Your task to perform on an android device: Go to Yahoo.com Image 0: 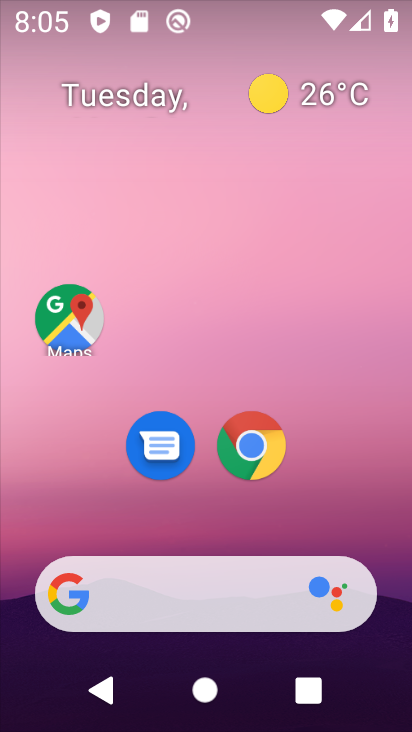
Step 0: click (252, 444)
Your task to perform on an android device: Go to Yahoo.com Image 1: 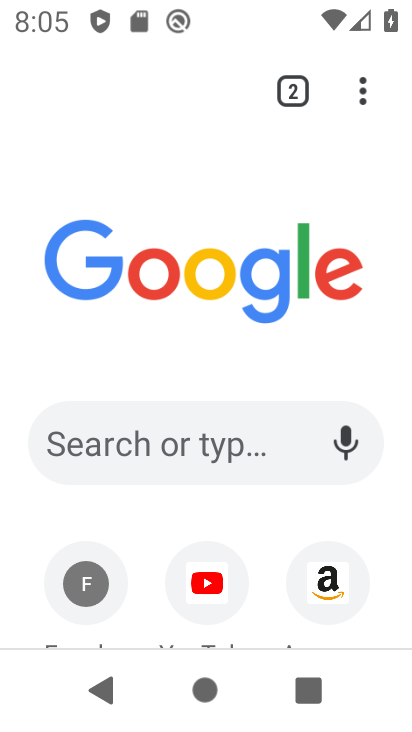
Step 1: click (220, 445)
Your task to perform on an android device: Go to Yahoo.com Image 2: 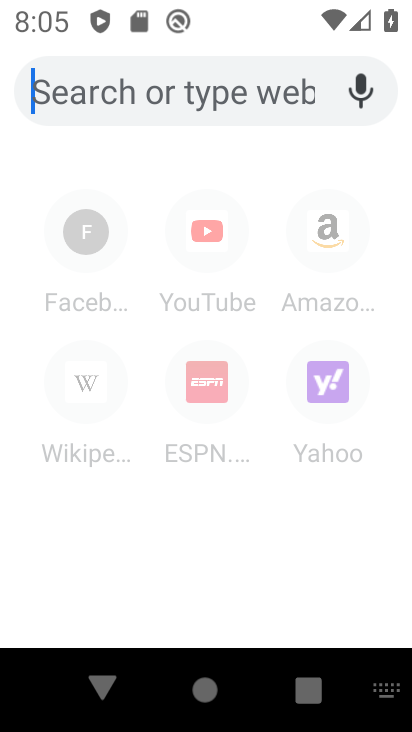
Step 2: type "Yahoo.com"
Your task to perform on an android device: Go to Yahoo.com Image 3: 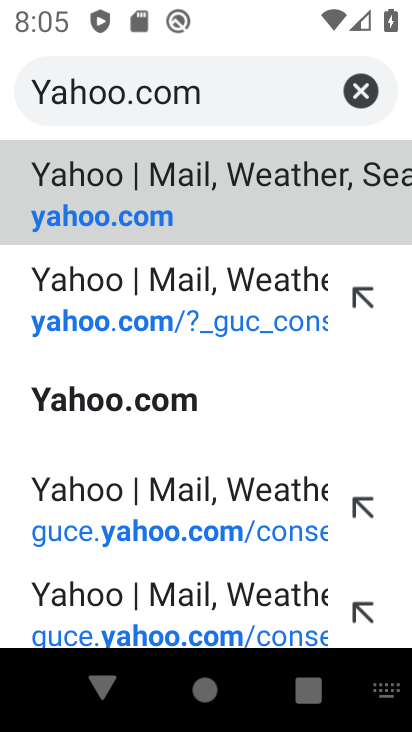
Step 3: click (133, 411)
Your task to perform on an android device: Go to Yahoo.com Image 4: 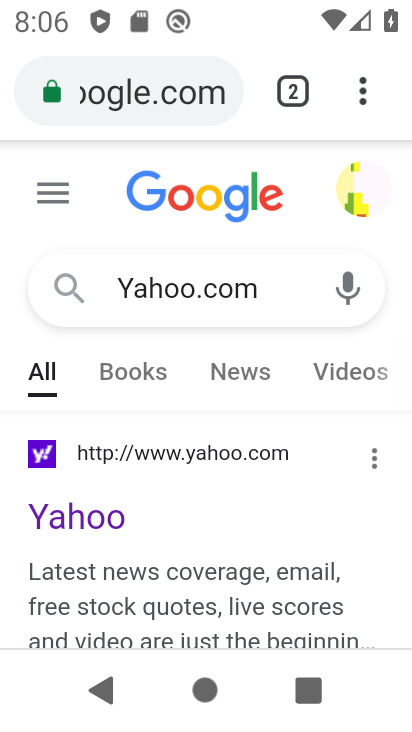
Step 4: click (149, 462)
Your task to perform on an android device: Go to Yahoo.com Image 5: 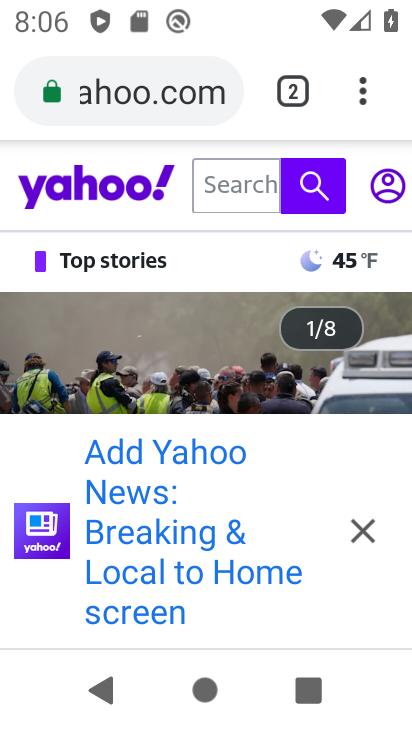
Step 5: task complete